Your task to perform on an android device: open app "YouTube Kids" (install if not already installed) and enter user name: "atmospheric@gmail.com" and password: "raze" Image 0: 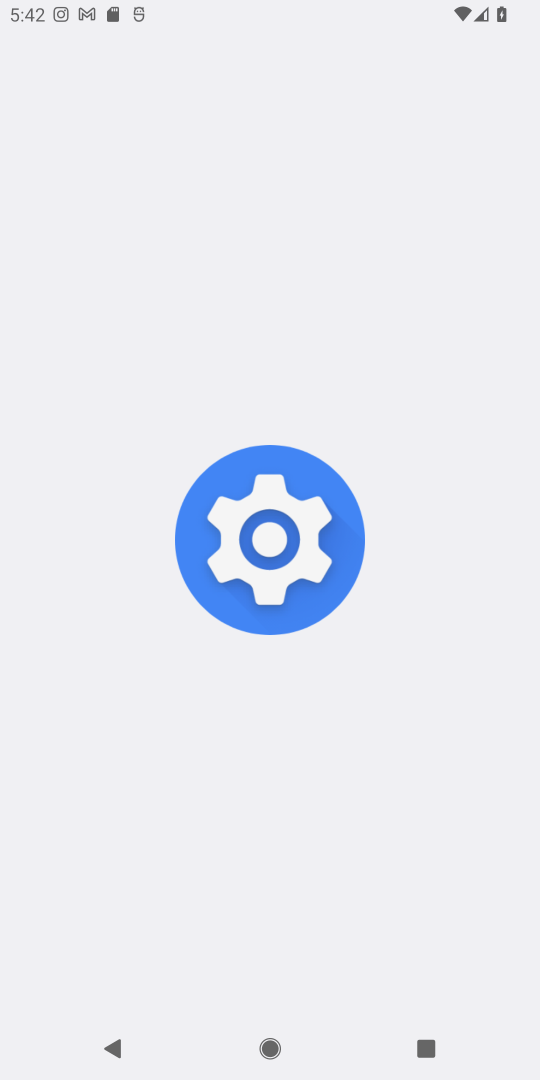
Step 0: press home button
Your task to perform on an android device: open app "YouTube Kids" (install if not already installed) and enter user name: "atmospheric@gmail.com" and password: "raze" Image 1: 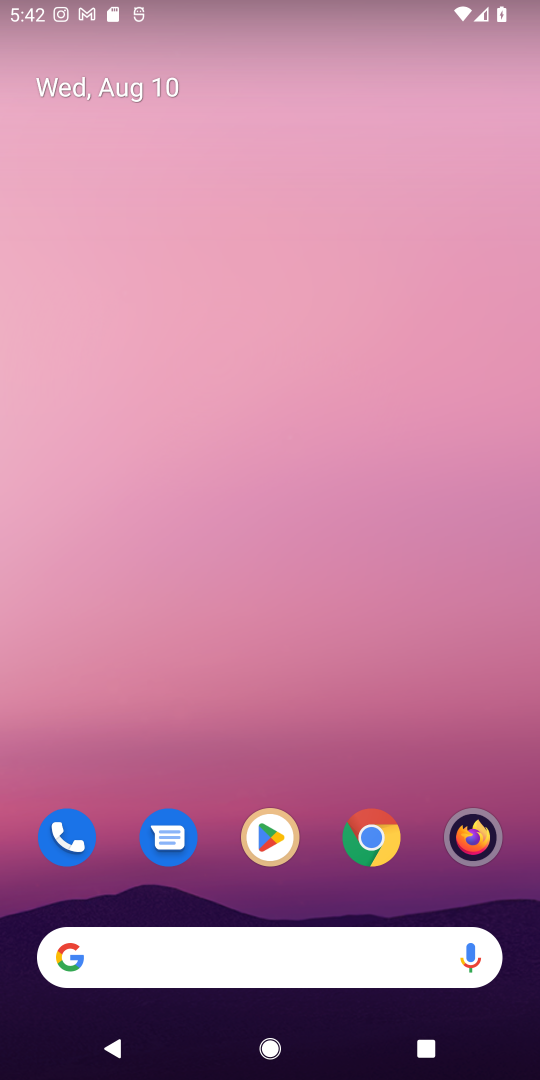
Step 1: click (267, 847)
Your task to perform on an android device: open app "YouTube Kids" (install if not already installed) and enter user name: "atmospheric@gmail.com" and password: "raze" Image 2: 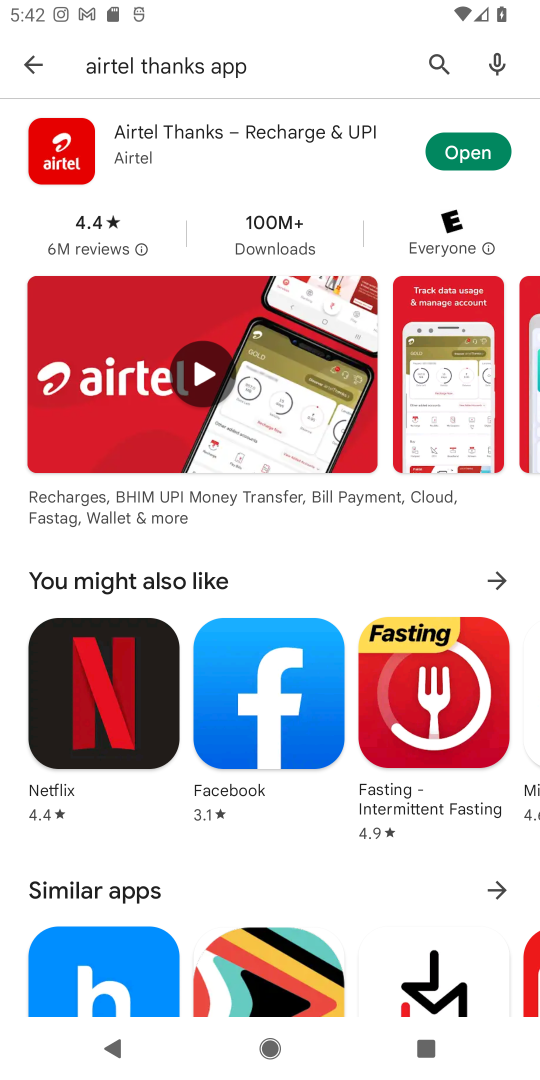
Step 2: click (441, 63)
Your task to perform on an android device: open app "YouTube Kids" (install if not already installed) and enter user name: "atmospheric@gmail.com" and password: "raze" Image 3: 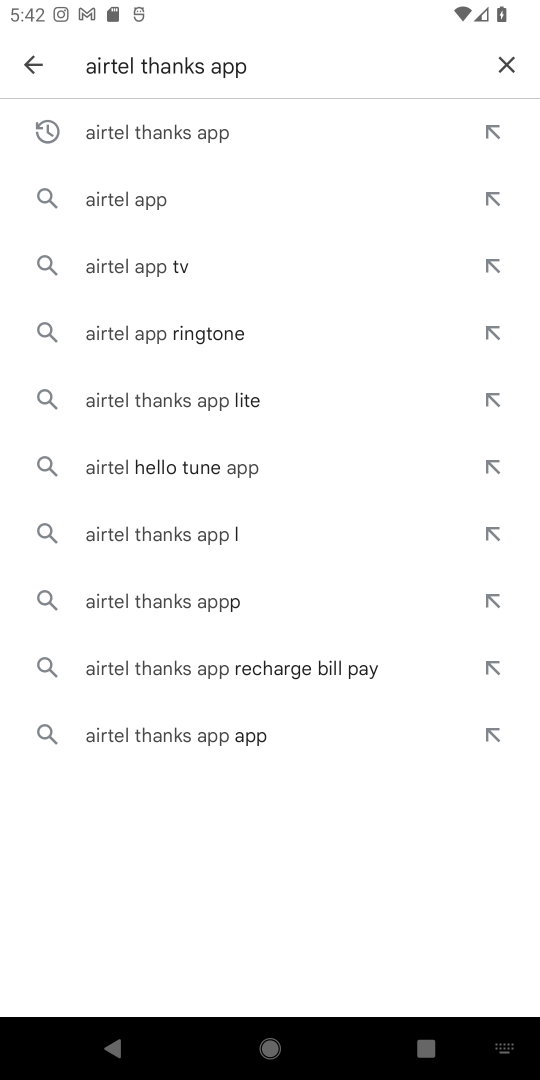
Step 3: click (504, 59)
Your task to perform on an android device: open app "YouTube Kids" (install if not already installed) and enter user name: "atmospheric@gmail.com" and password: "raze" Image 4: 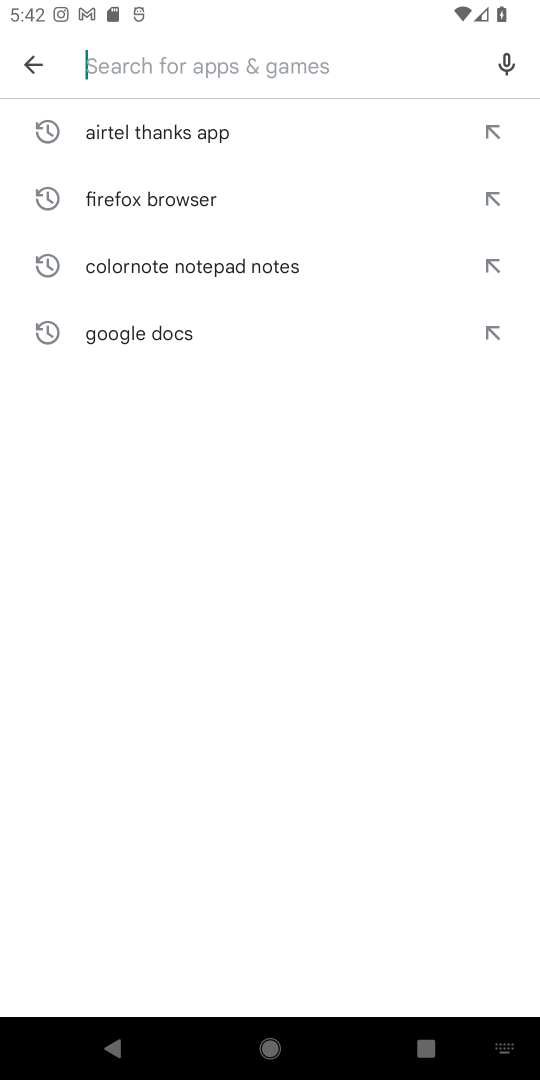
Step 4: type "YouTube Kids"
Your task to perform on an android device: open app "YouTube Kids" (install if not already installed) and enter user name: "atmospheric@gmail.com" and password: "raze" Image 5: 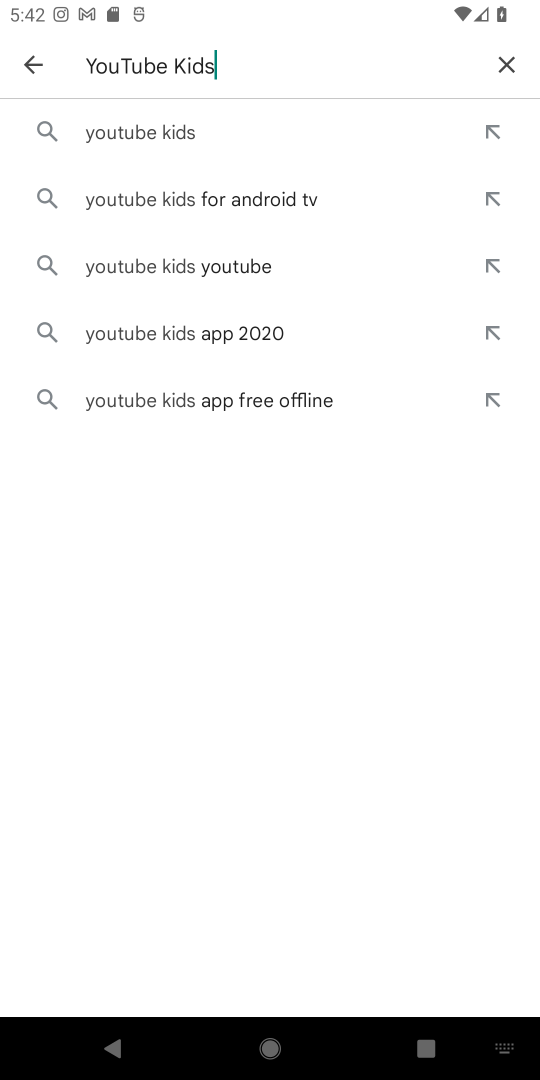
Step 5: click (173, 134)
Your task to perform on an android device: open app "YouTube Kids" (install if not already installed) and enter user name: "atmospheric@gmail.com" and password: "raze" Image 6: 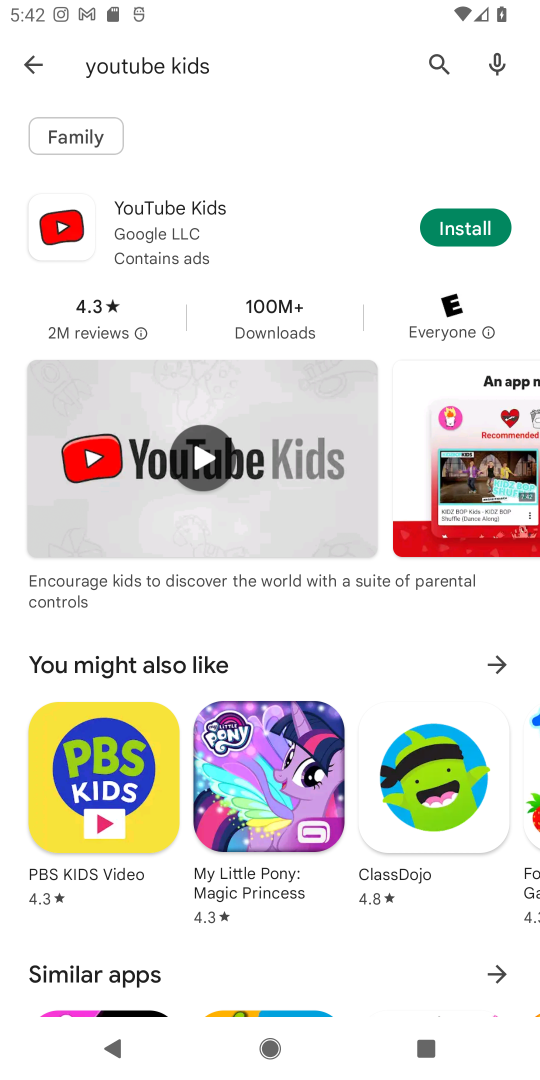
Step 6: click (456, 235)
Your task to perform on an android device: open app "YouTube Kids" (install if not already installed) and enter user name: "atmospheric@gmail.com" and password: "raze" Image 7: 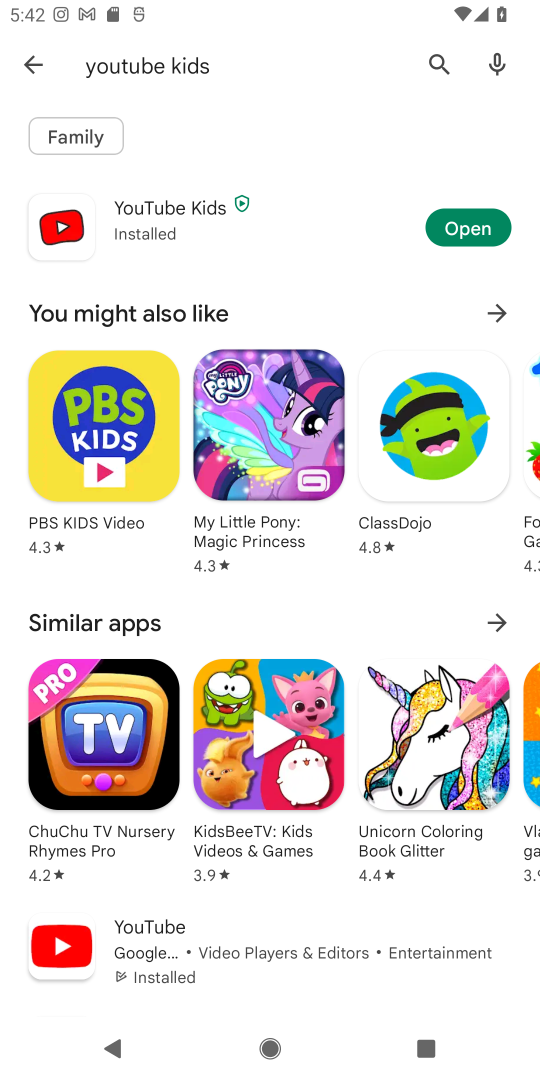
Step 7: click (480, 233)
Your task to perform on an android device: open app "YouTube Kids" (install if not already installed) and enter user name: "atmospheric@gmail.com" and password: "raze" Image 8: 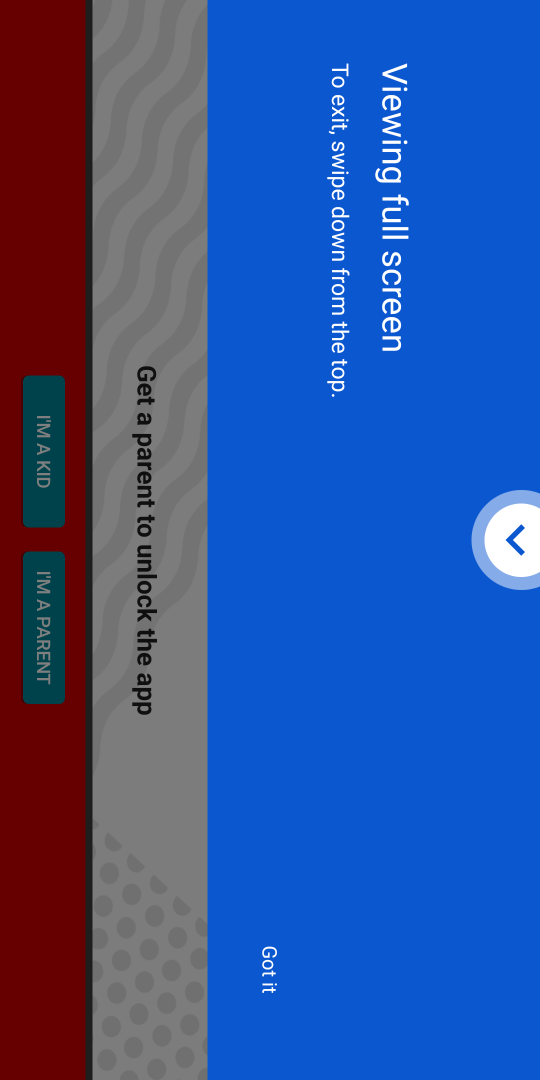
Step 8: click (269, 964)
Your task to perform on an android device: open app "YouTube Kids" (install if not already installed) and enter user name: "atmospheric@gmail.com" and password: "raze" Image 9: 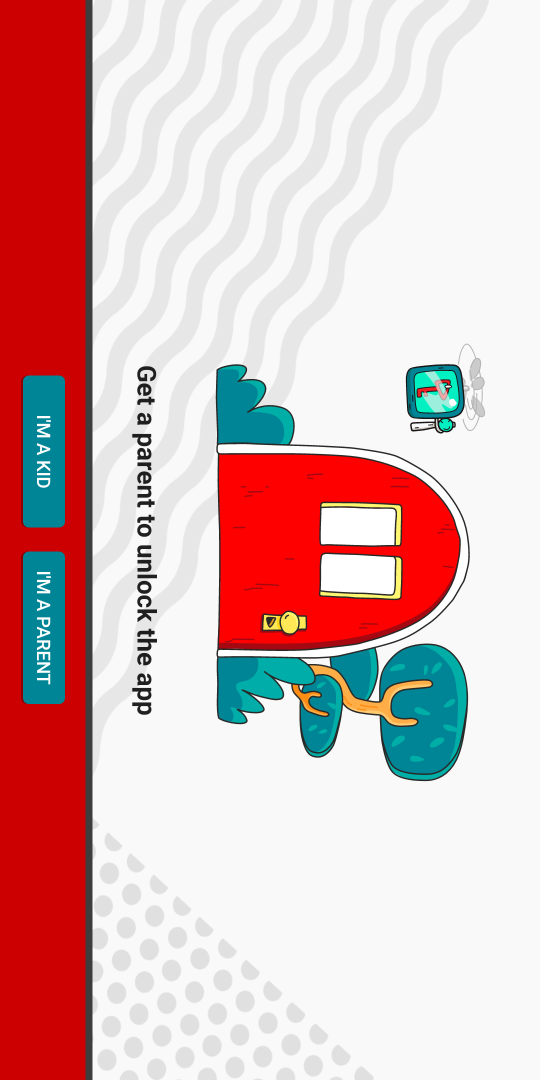
Step 9: click (6, 611)
Your task to perform on an android device: open app "YouTube Kids" (install if not already installed) and enter user name: "atmospheric@gmail.com" and password: "raze" Image 10: 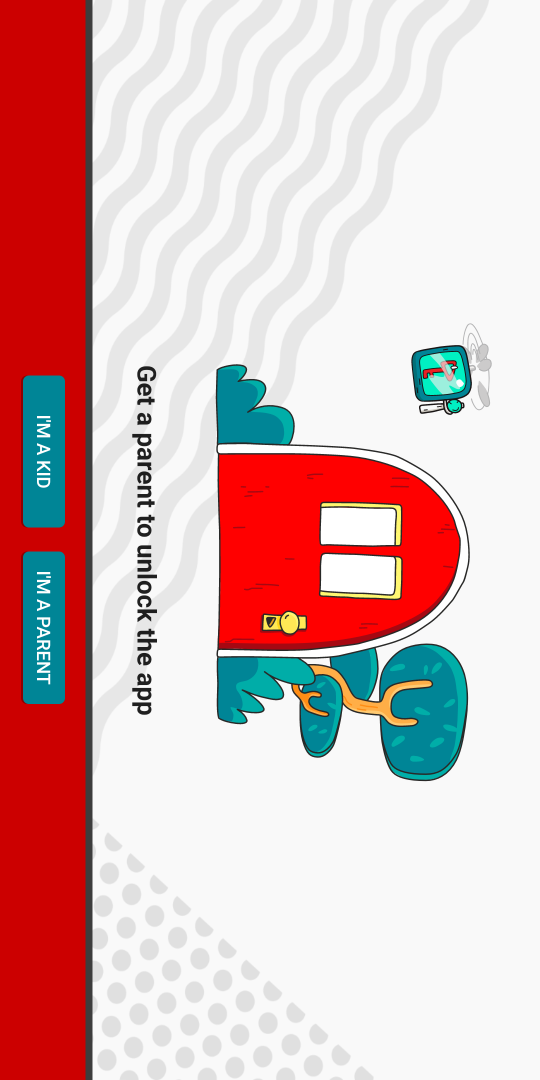
Step 10: click (44, 614)
Your task to perform on an android device: open app "YouTube Kids" (install if not already installed) and enter user name: "atmospheric@gmail.com" and password: "raze" Image 11: 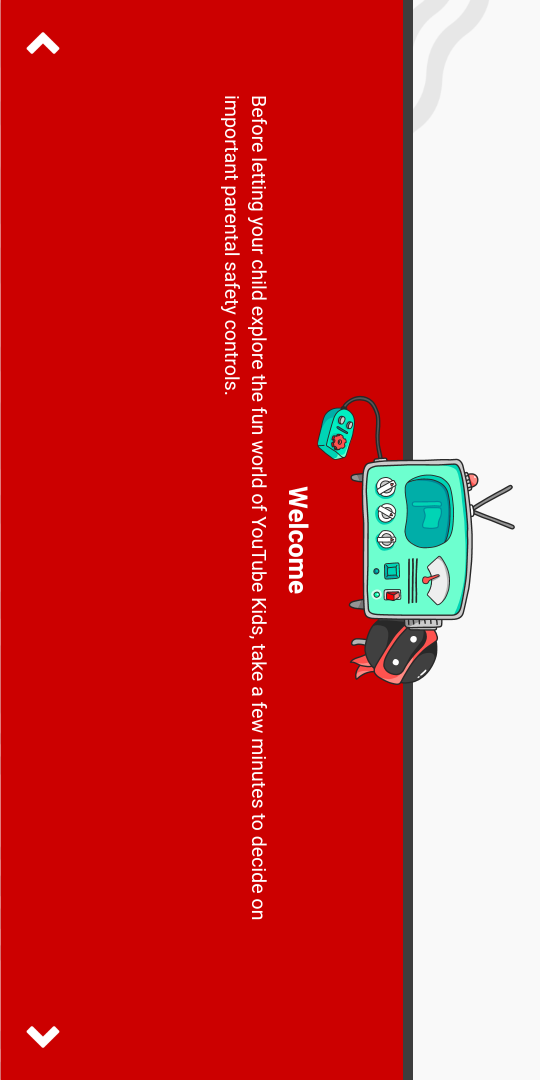
Step 11: click (61, 1042)
Your task to perform on an android device: open app "YouTube Kids" (install if not already installed) and enter user name: "atmospheric@gmail.com" and password: "raze" Image 12: 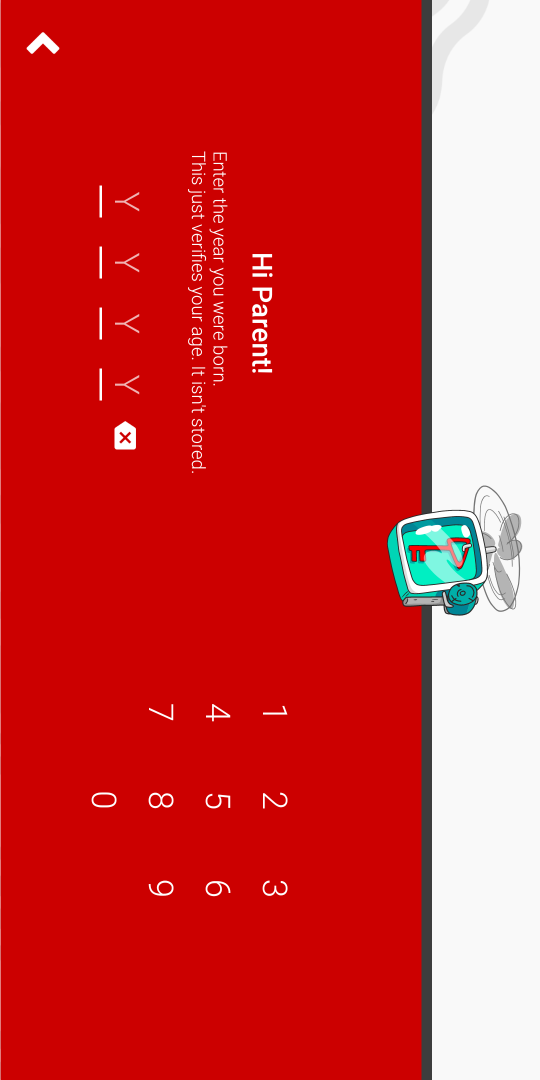
Step 12: task complete